Your task to perform on an android device: Open the calendar app, open the side menu, and click the "Day" option Image 0: 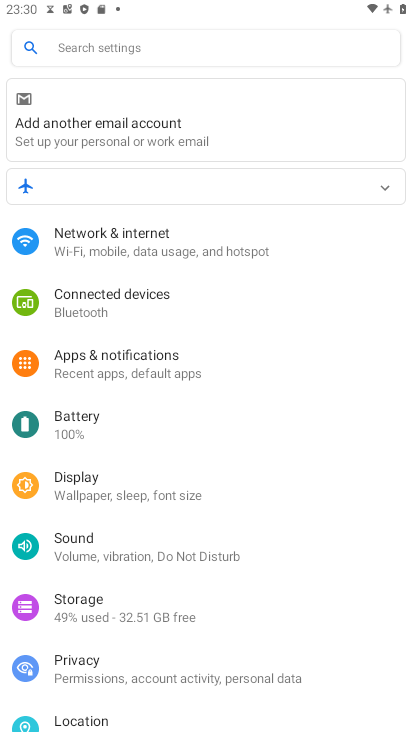
Step 0: press home button
Your task to perform on an android device: Open the calendar app, open the side menu, and click the "Day" option Image 1: 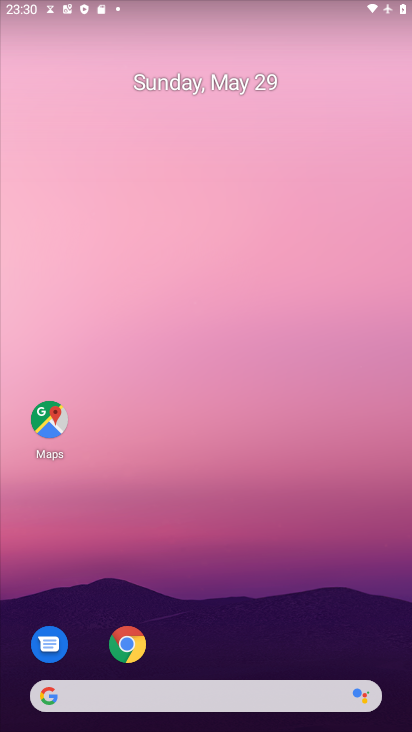
Step 1: drag from (171, 603) to (158, 166)
Your task to perform on an android device: Open the calendar app, open the side menu, and click the "Day" option Image 2: 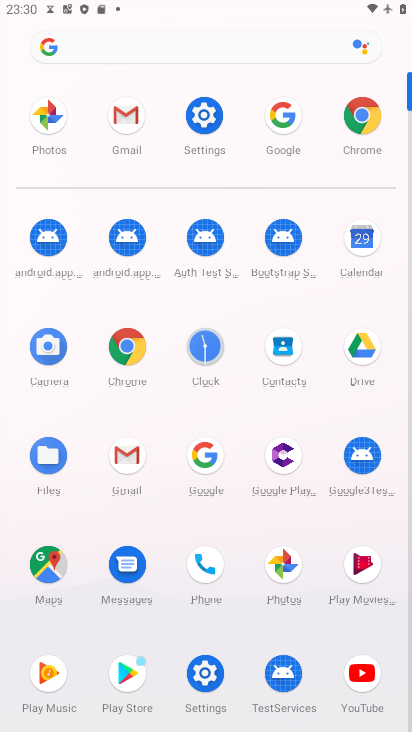
Step 2: click (357, 232)
Your task to perform on an android device: Open the calendar app, open the side menu, and click the "Day" option Image 3: 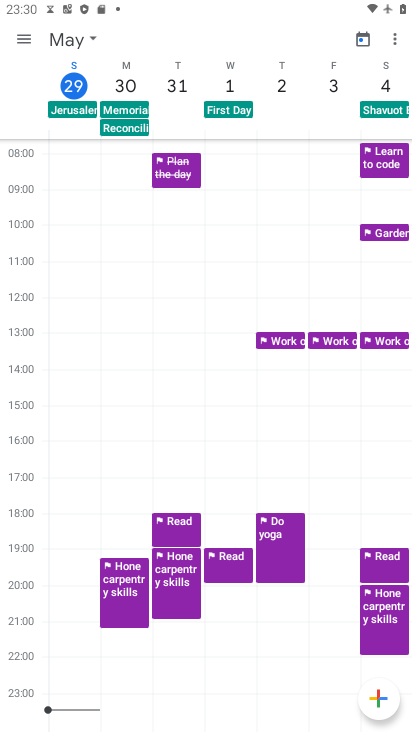
Step 3: click (28, 31)
Your task to perform on an android device: Open the calendar app, open the side menu, and click the "Day" option Image 4: 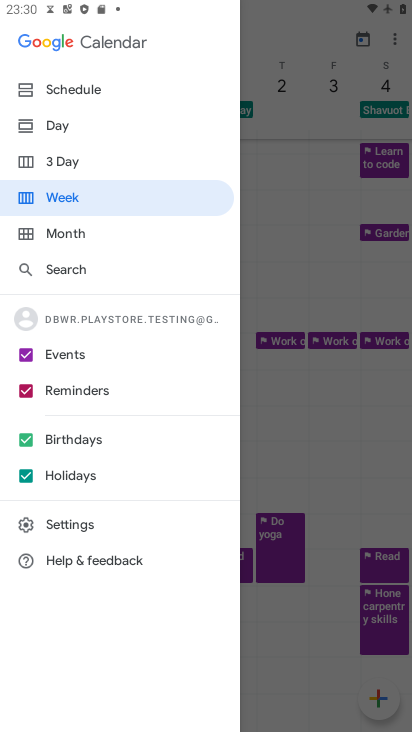
Step 4: click (84, 119)
Your task to perform on an android device: Open the calendar app, open the side menu, and click the "Day" option Image 5: 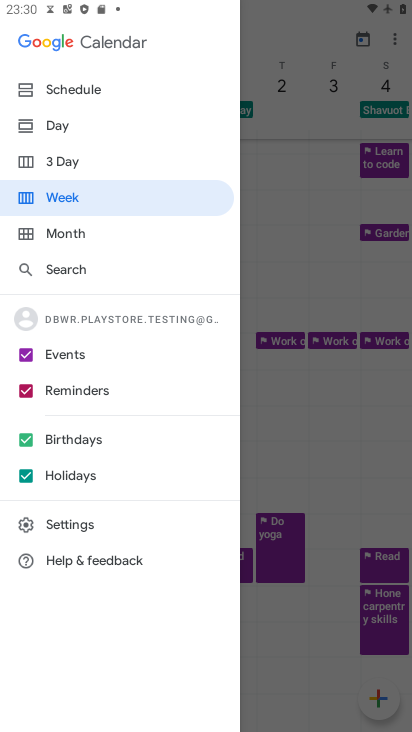
Step 5: click (50, 122)
Your task to perform on an android device: Open the calendar app, open the side menu, and click the "Day" option Image 6: 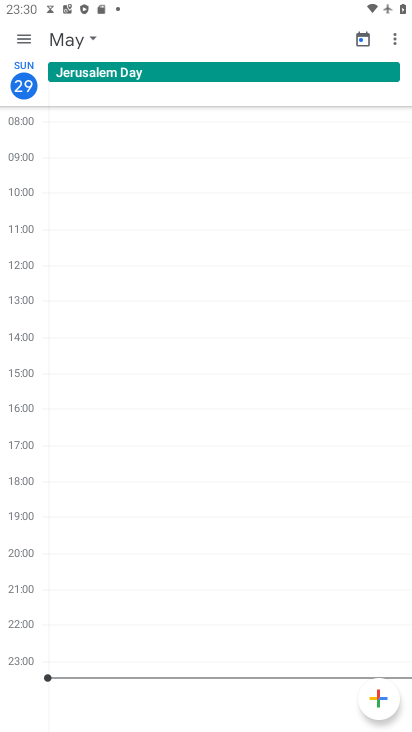
Step 6: task complete